Your task to perform on an android device: Open calendar and show me the third week of next month Image 0: 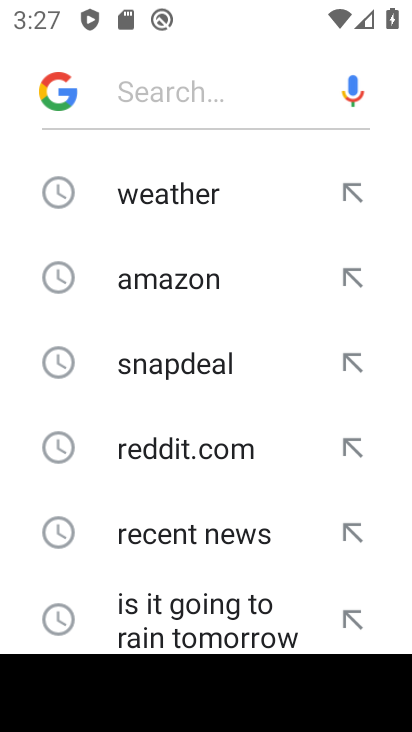
Step 0: press home button
Your task to perform on an android device: Open calendar and show me the third week of next month Image 1: 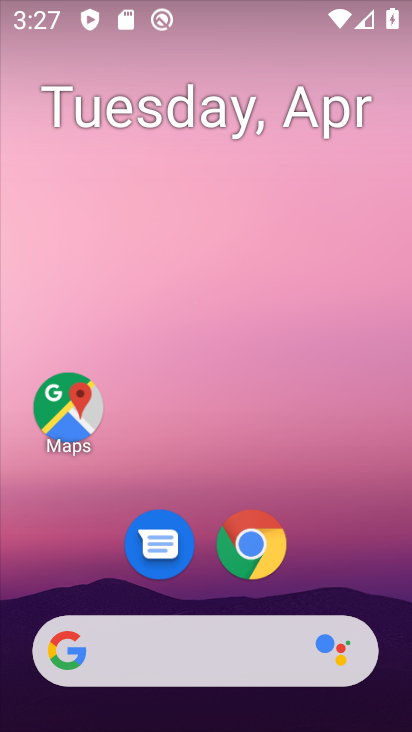
Step 1: drag from (321, 402) to (321, 121)
Your task to perform on an android device: Open calendar and show me the third week of next month Image 2: 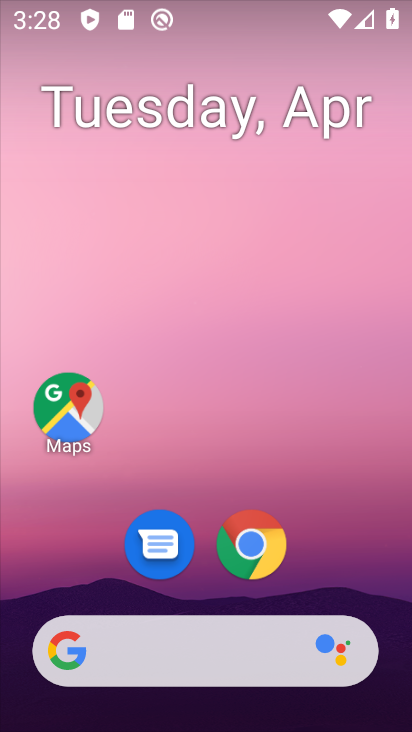
Step 2: drag from (345, 538) to (344, 128)
Your task to perform on an android device: Open calendar and show me the third week of next month Image 3: 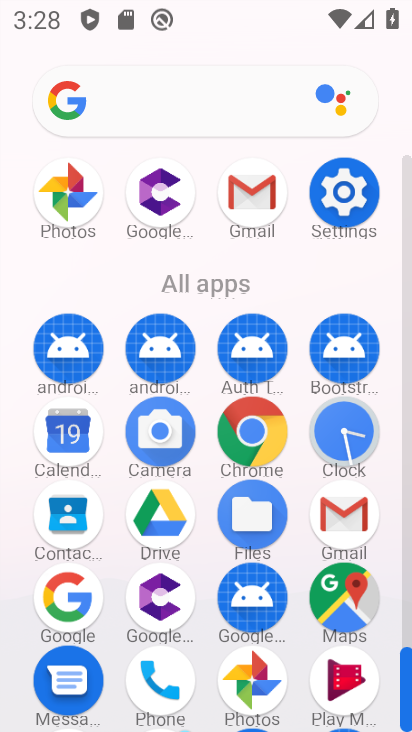
Step 3: click (69, 449)
Your task to perform on an android device: Open calendar and show me the third week of next month Image 4: 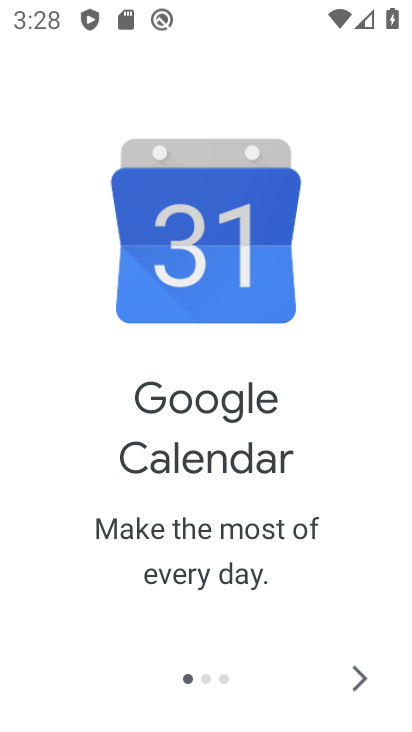
Step 4: click (362, 679)
Your task to perform on an android device: Open calendar and show me the third week of next month Image 5: 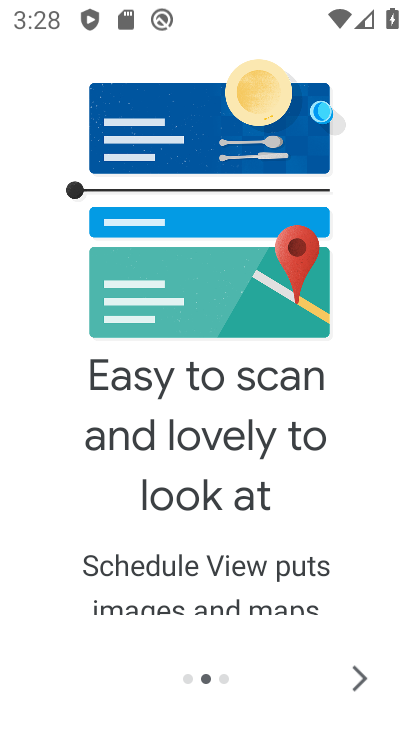
Step 5: click (361, 679)
Your task to perform on an android device: Open calendar and show me the third week of next month Image 6: 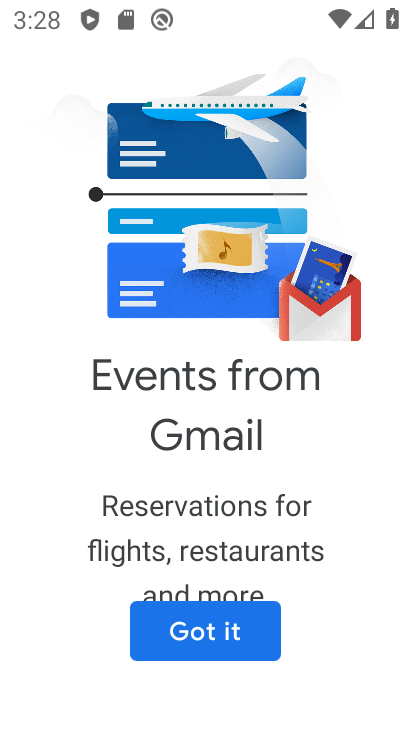
Step 6: click (150, 623)
Your task to perform on an android device: Open calendar and show me the third week of next month Image 7: 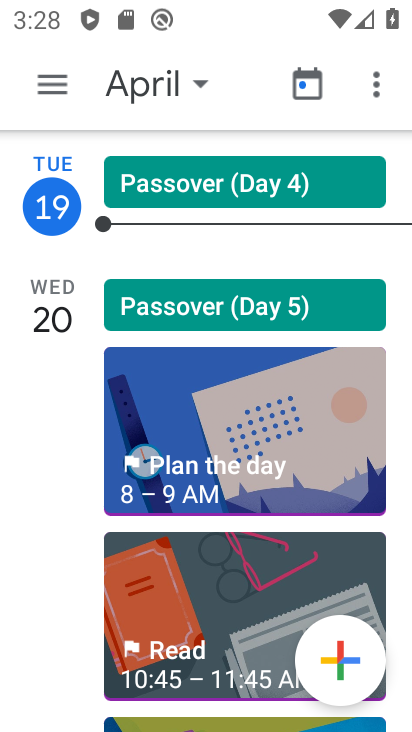
Step 7: click (175, 92)
Your task to perform on an android device: Open calendar and show me the third week of next month Image 8: 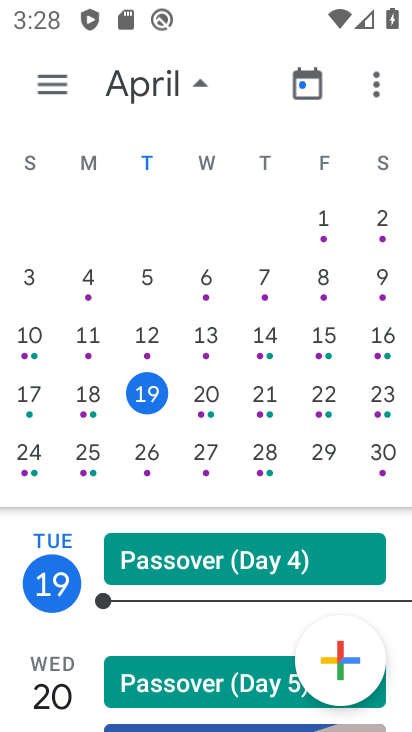
Step 8: drag from (361, 395) to (42, 412)
Your task to perform on an android device: Open calendar and show me the third week of next month Image 9: 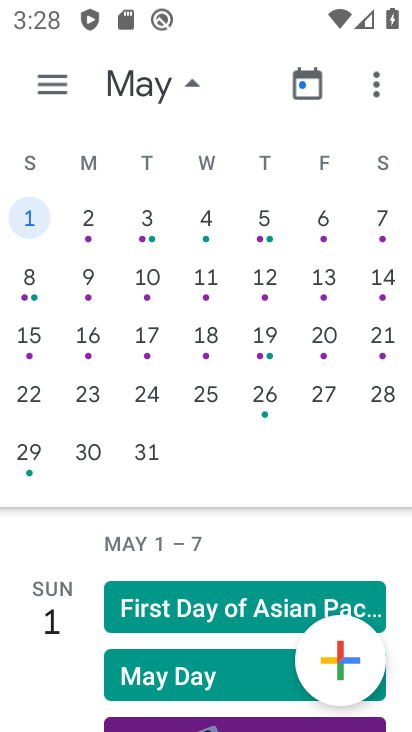
Step 9: click (27, 348)
Your task to perform on an android device: Open calendar and show me the third week of next month Image 10: 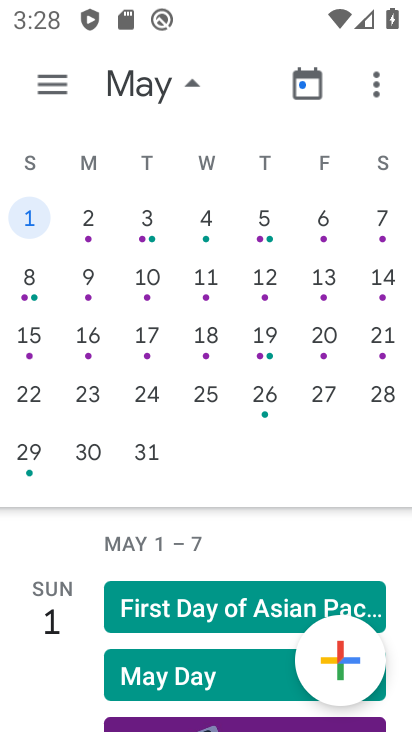
Step 10: click (80, 346)
Your task to perform on an android device: Open calendar and show me the third week of next month Image 11: 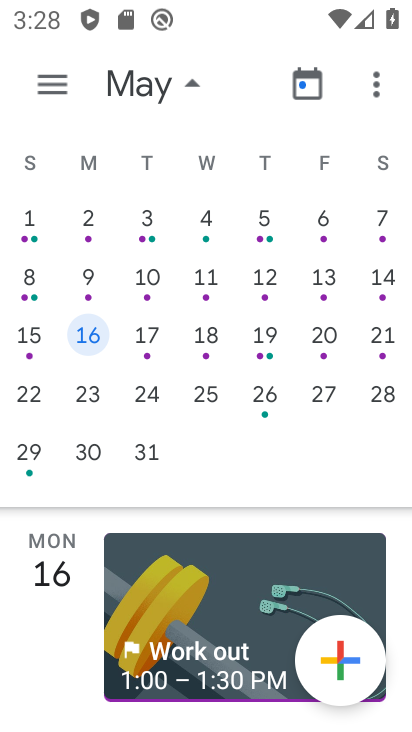
Step 11: click (142, 347)
Your task to perform on an android device: Open calendar and show me the third week of next month Image 12: 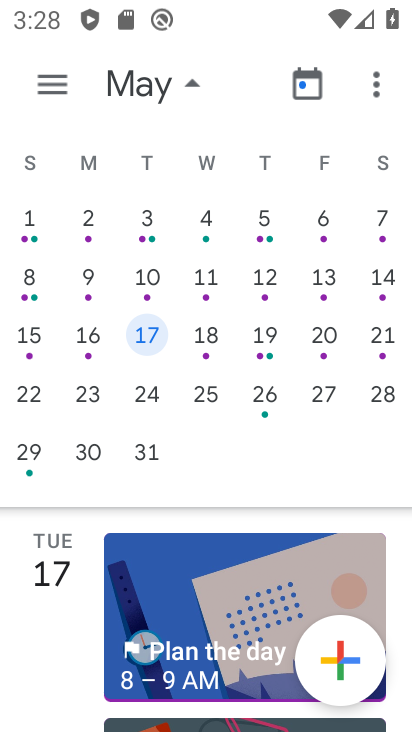
Step 12: click (207, 348)
Your task to perform on an android device: Open calendar and show me the third week of next month Image 13: 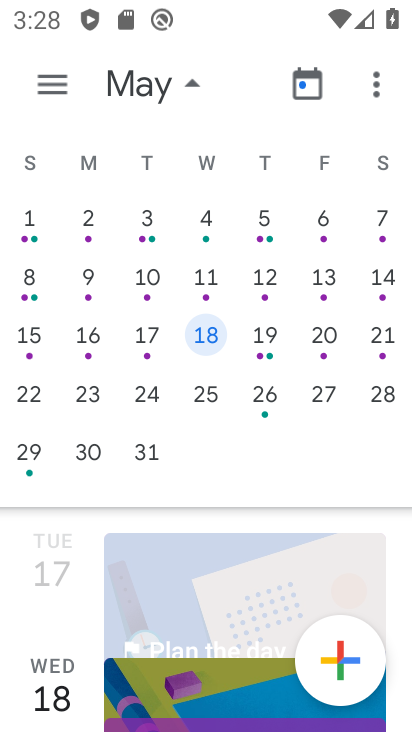
Step 13: click (263, 352)
Your task to perform on an android device: Open calendar and show me the third week of next month Image 14: 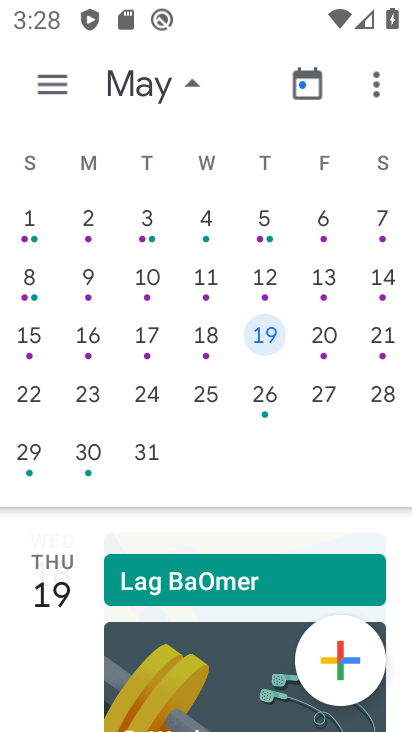
Step 14: click (330, 352)
Your task to perform on an android device: Open calendar and show me the third week of next month Image 15: 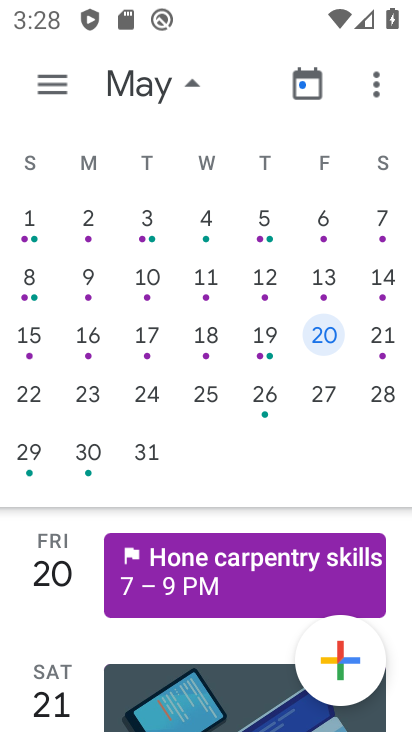
Step 15: click (374, 347)
Your task to perform on an android device: Open calendar and show me the third week of next month Image 16: 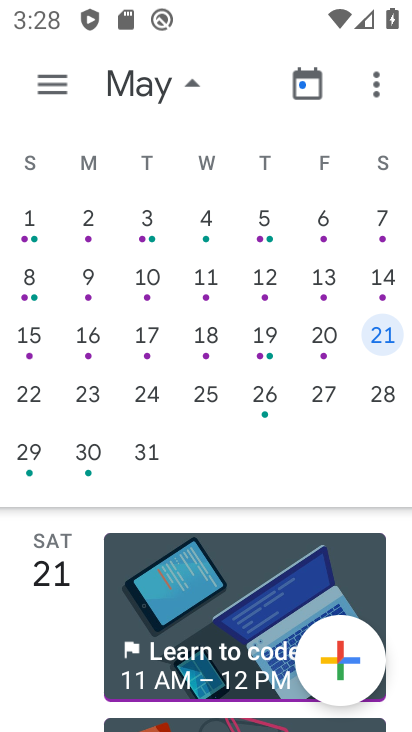
Step 16: task complete